Your task to perform on an android device: When is my next meeting? Image 0: 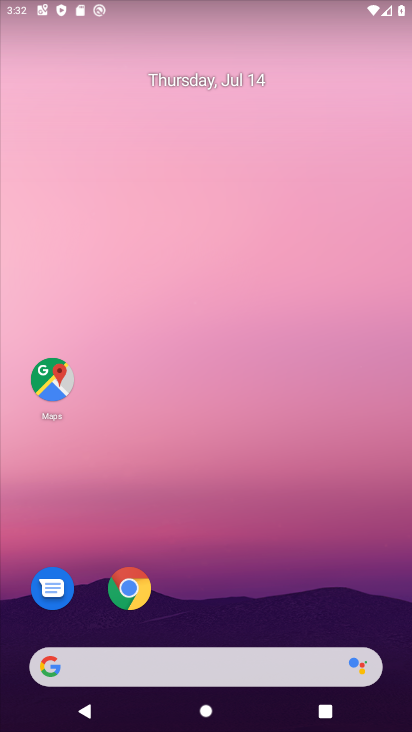
Step 0: drag from (244, 423) to (21, 197)
Your task to perform on an android device: When is my next meeting? Image 1: 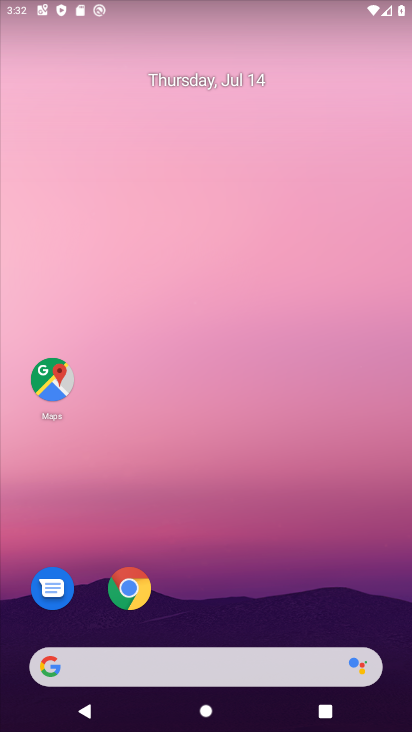
Step 1: drag from (278, 651) to (15, 505)
Your task to perform on an android device: When is my next meeting? Image 2: 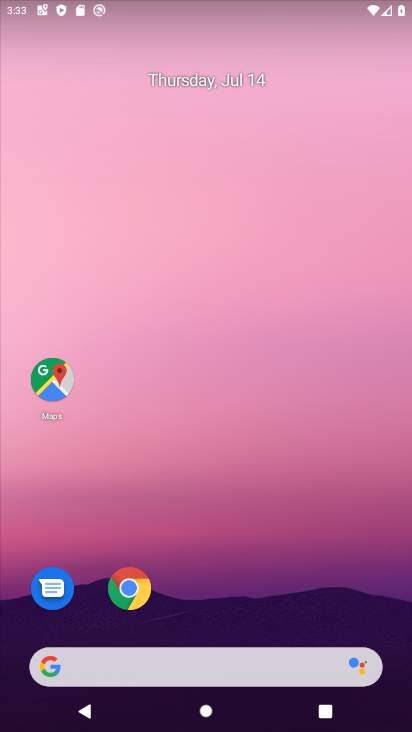
Step 2: drag from (275, 623) to (270, 3)
Your task to perform on an android device: When is my next meeting? Image 3: 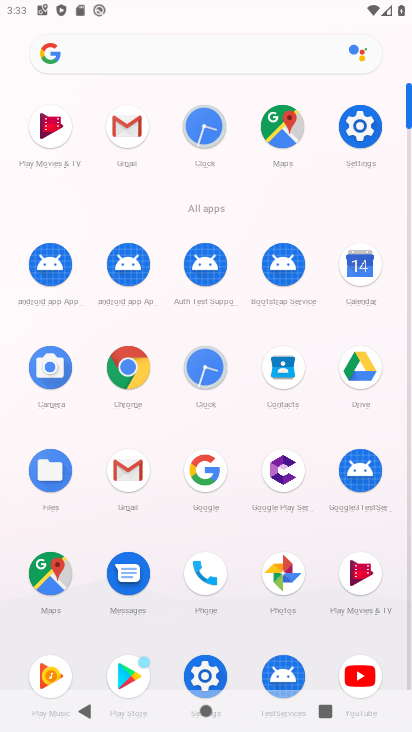
Step 3: click (372, 278)
Your task to perform on an android device: When is my next meeting? Image 4: 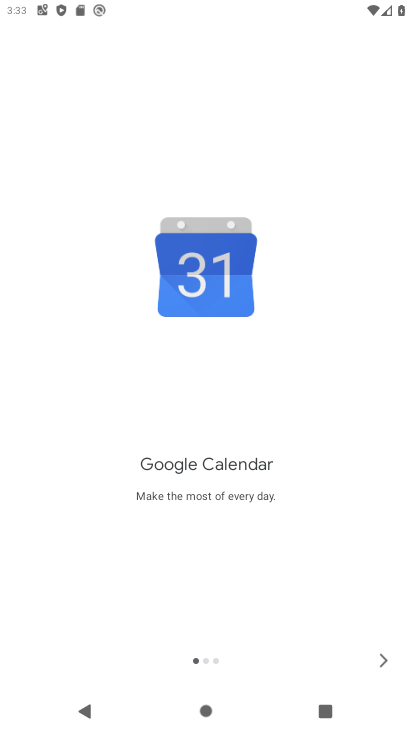
Step 4: click (385, 658)
Your task to perform on an android device: When is my next meeting? Image 5: 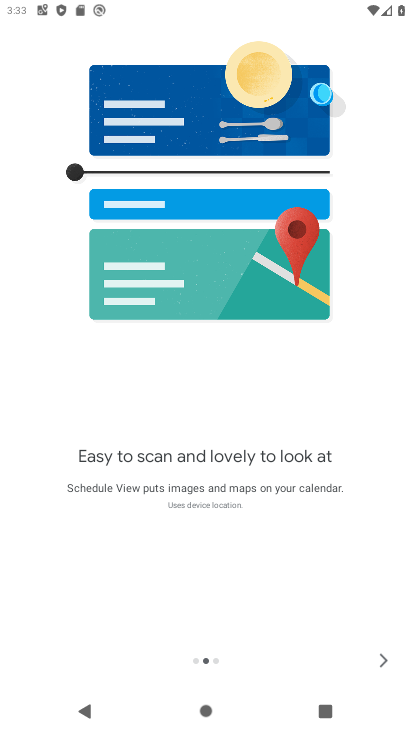
Step 5: click (380, 657)
Your task to perform on an android device: When is my next meeting? Image 6: 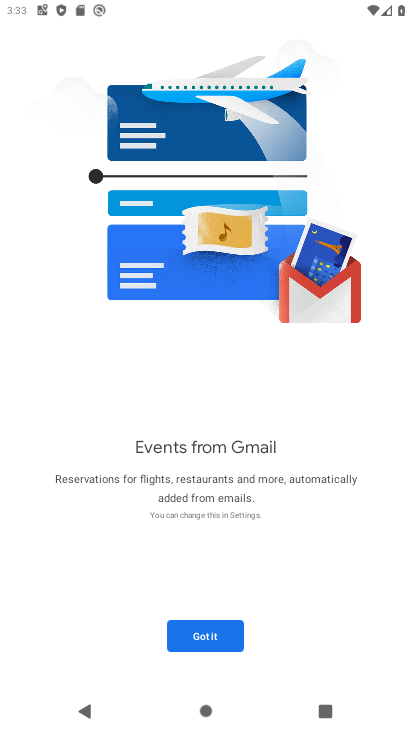
Step 6: click (198, 637)
Your task to perform on an android device: When is my next meeting? Image 7: 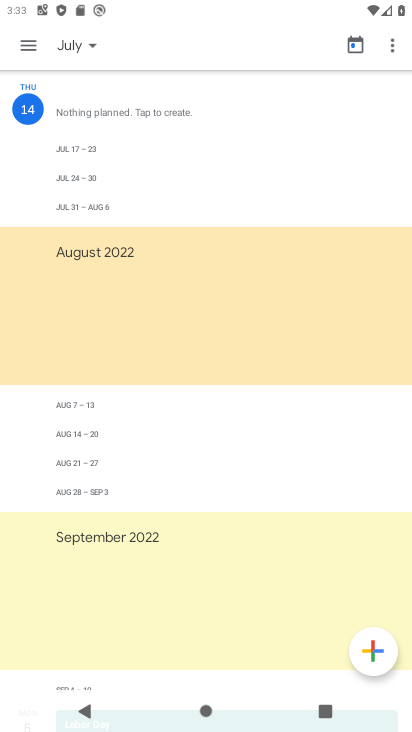
Step 7: click (73, 36)
Your task to perform on an android device: When is my next meeting? Image 8: 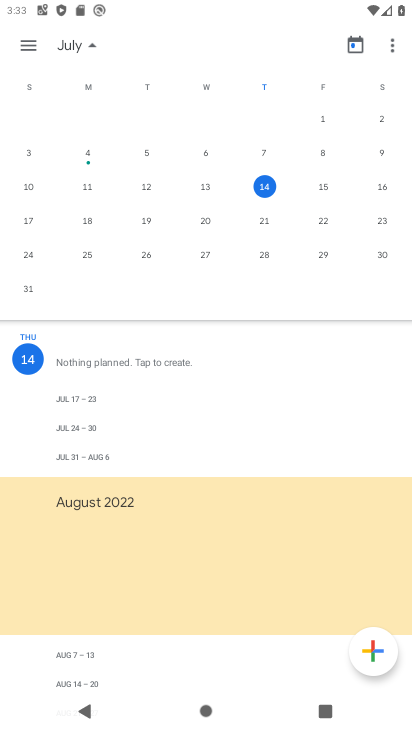
Step 8: task complete